Your task to perform on an android device: Clear the cart on bestbuy.com. Add "macbook pro 15 inch" to the cart on bestbuy.com, then select checkout. Image 0: 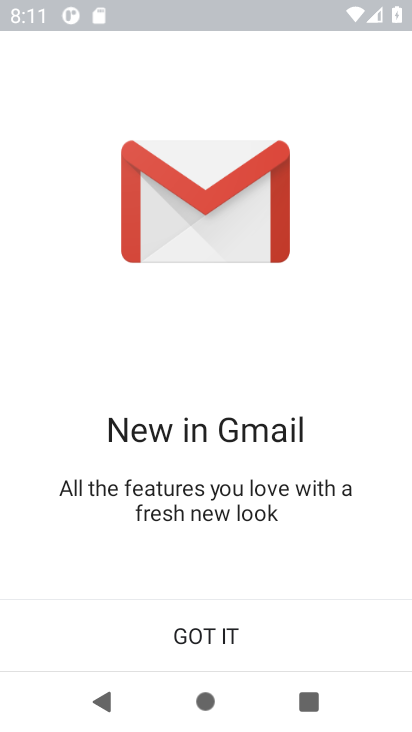
Step 0: press home button
Your task to perform on an android device: Clear the cart on bestbuy.com. Add "macbook pro 15 inch" to the cart on bestbuy.com, then select checkout. Image 1: 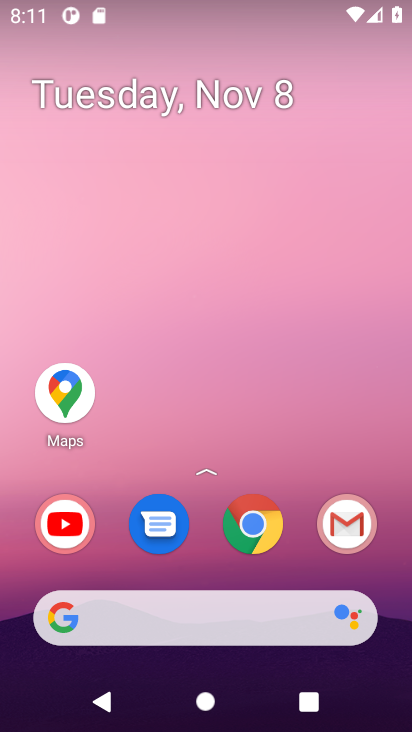
Step 1: click (254, 540)
Your task to perform on an android device: Clear the cart on bestbuy.com. Add "macbook pro 15 inch" to the cart on bestbuy.com, then select checkout. Image 2: 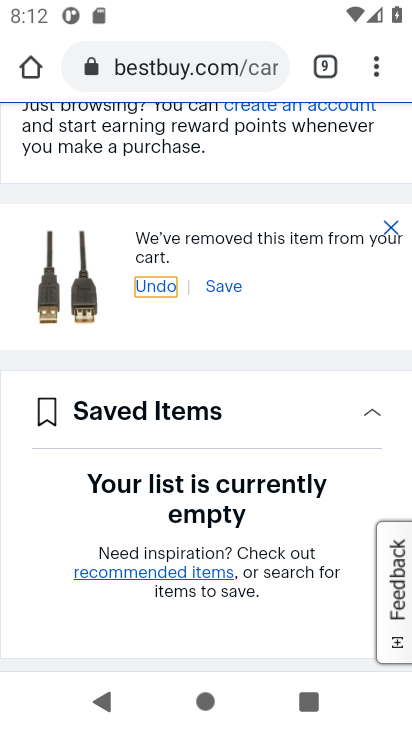
Step 2: drag from (261, 209) to (211, 525)
Your task to perform on an android device: Clear the cart on bestbuy.com. Add "macbook pro 15 inch" to the cart on bestbuy.com, then select checkout. Image 3: 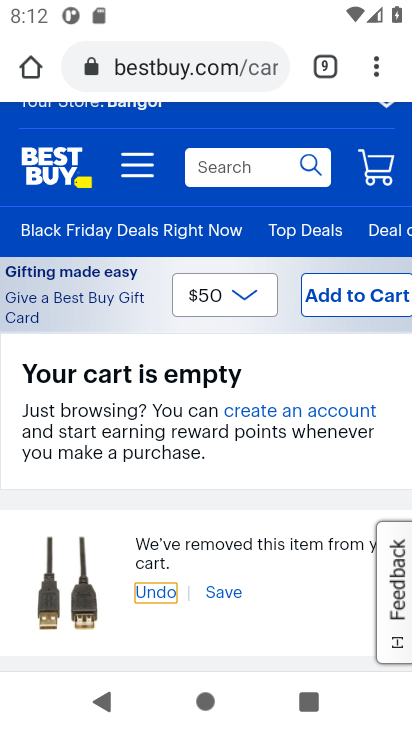
Step 3: click (234, 160)
Your task to perform on an android device: Clear the cart on bestbuy.com. Add "macbook pro 15 inch" to the cart on bestbuy.com, then select checkout. Image 4: 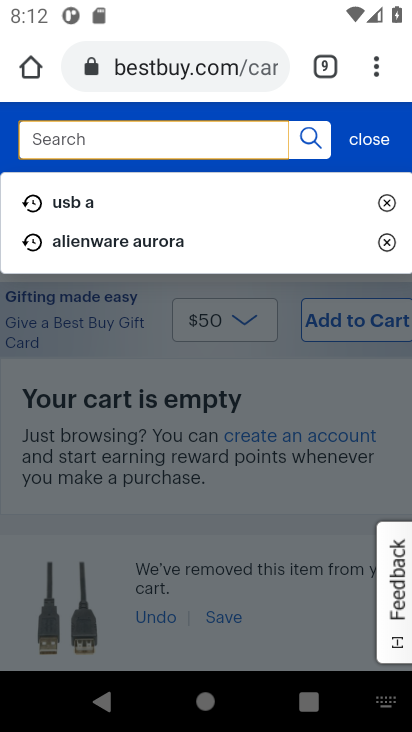
Step 4: type "macbook pro 15 inch"
Your task to perform on an android device: Clear the cart on bestbuy.com. Add "macbook pro 15 inch" to the cart on bestbuy.com, then select checkout. Image 5: 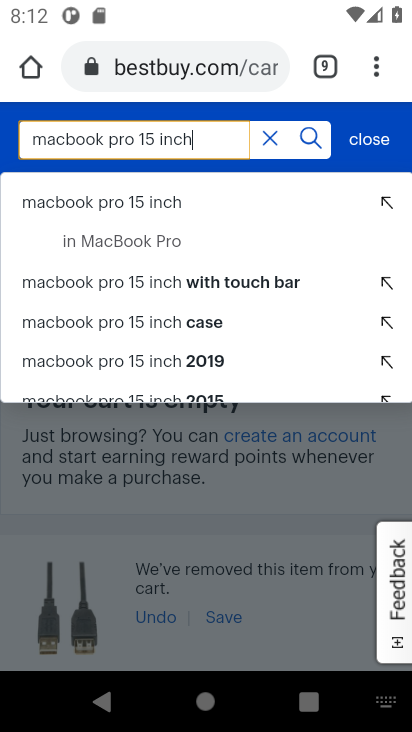
Step 5: click (158, 207)
Your task to perform on an android device: Clear the cart on bestbuy.com. Add "macbook pro 15 inch" to the cart on bestbuy.com, then select checkout. Image 6: 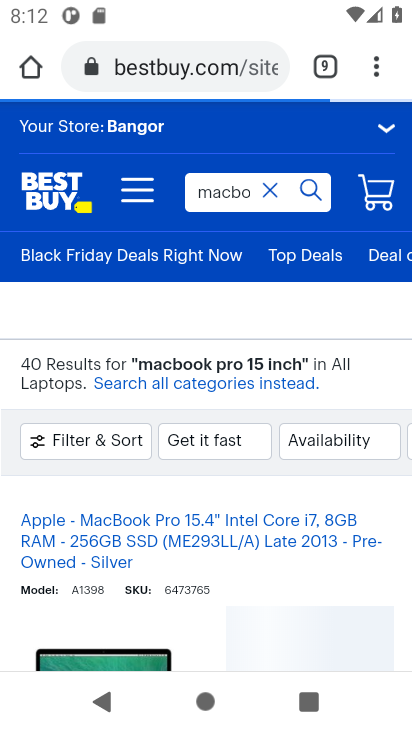
Step 6: drag from (185, 461) to (197, 295)
Your task to perform on an android device: Clear the cart on bestbuy.com. Add "macbook pro 15 inch" to the cart on bestbuy.com, then select checkout. Image 7: 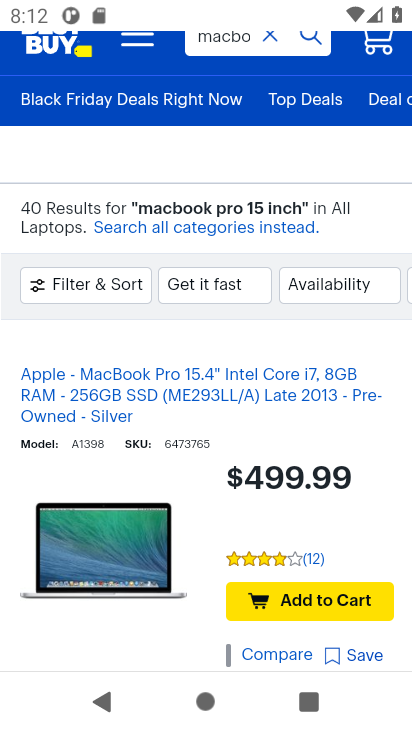
Step 7: drag from (174, 473) to (183, 177)
Your task to perform on an android device: Clear the cart on bestbuy.com. Add "macbook pro 15 inch" to the cart on bestbuy.com, then select checkout. Image 8: 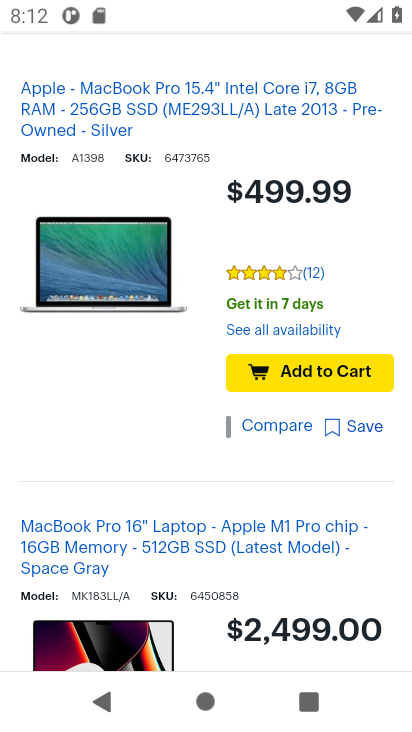
Step 8: drag from (160, 436) to (173, 107)
Your task to perform on an android device: Clear the cart on bestbuy.com. Add "macbook pro 15 inch" to the cart on bestbuy.com, then select checkout. Image 9: 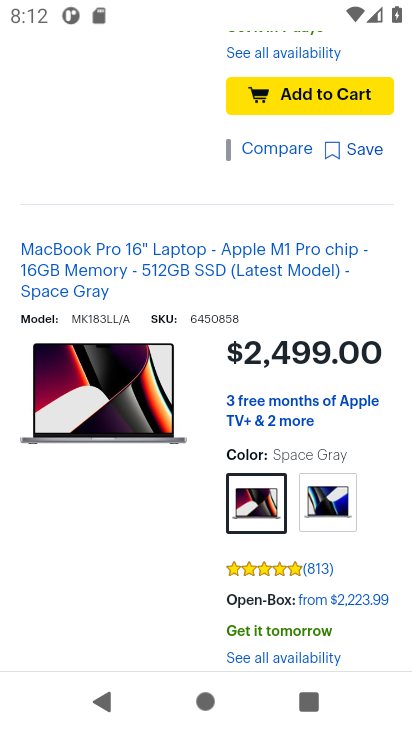
Step 9: drag from (161, 512) to (198, 154)
Your task to perform on an android device: Clear the cart on bestbuy.com. Add "macbook pro 15 inch" to the cart on bestbuy.com, then select checkout. Image 10: 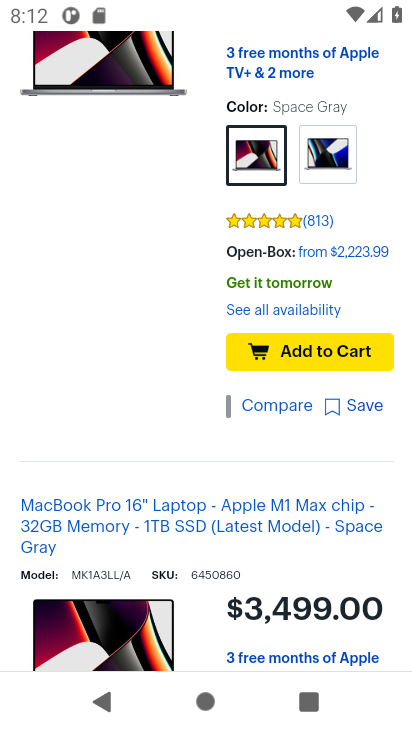
Step 10: drag from (180, 457) to (185, 214)
Your task to perform on an android device: Clear the cart on bestbuy.com. Add "macbook pro 15 inch" to the cart on bestbuy.com, then select checkout. Image 11: 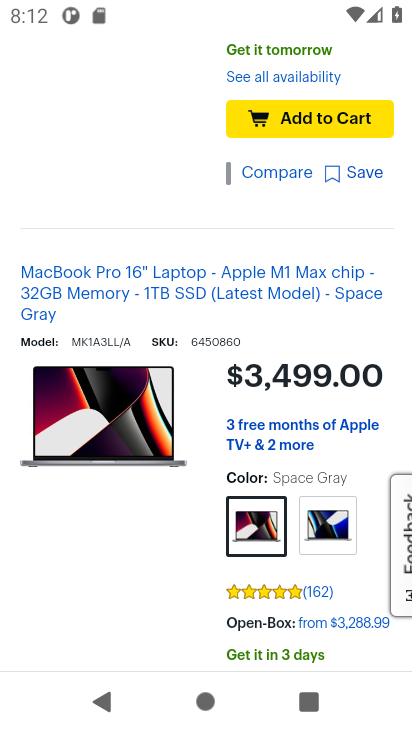
Step 11: drag from (132, 547) to (173, 170)
Your task to perform on an android device: Clear the cart on bestbuy.com. Add "macbook pro 15 inch" to the cart on bestbuy.com, then select checkout. Image 12: 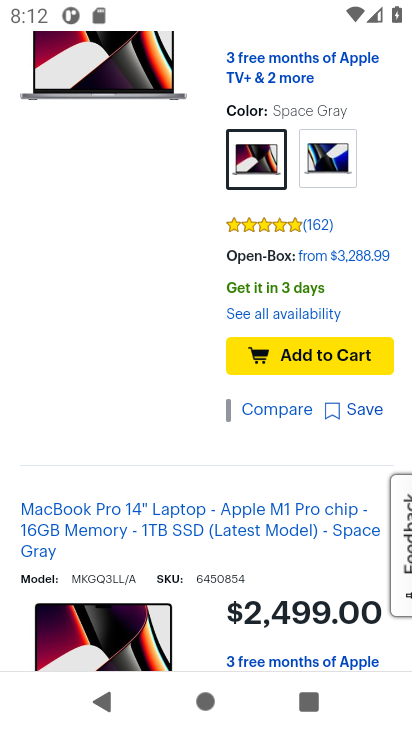
Step 12: drag from (134, 508) to (165, 116)
Your task to perform on an android device: Clear the cart on bestbuy.com. Add "macbook pro 15 inch" to the cart on bestbuy.com, then select checkout. Image 13: 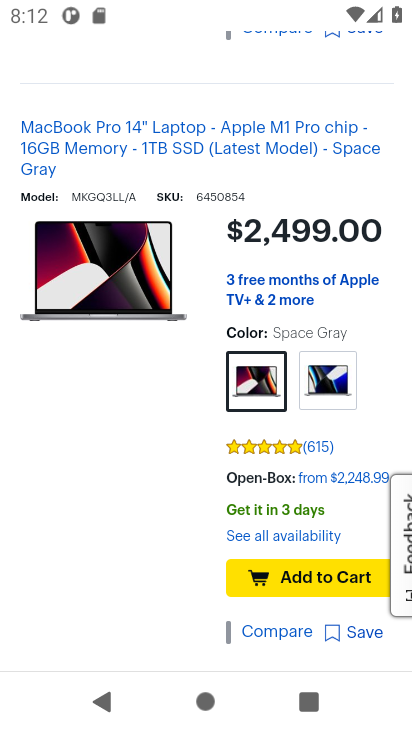
Step 13: drag from (122, 480) to (168, 119)
Your task to perform on an android device: Clear the cart on bestbuy.com. Add "macbook pro 15 inch" to the cart on bestbuy.com, then select checkout. Image 14: 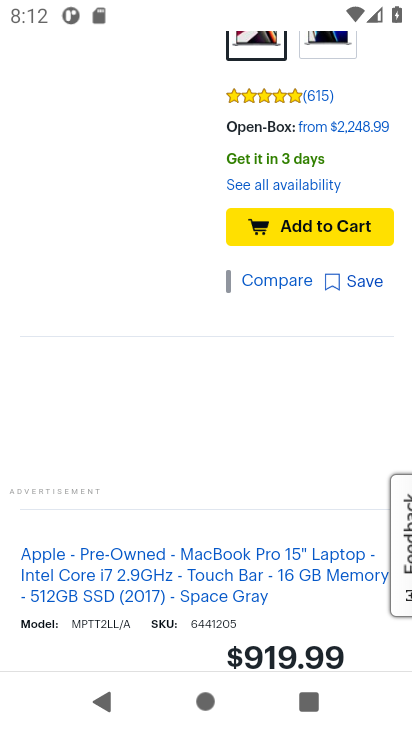
Step 14: drag from (167, 478) to (179, 152)
Your task to perform on an android device: Clear the cart on bestbuy.com. Add "macbook pro 15 inch" to the cart on bestbuy.com, then select checkout. Image 15: 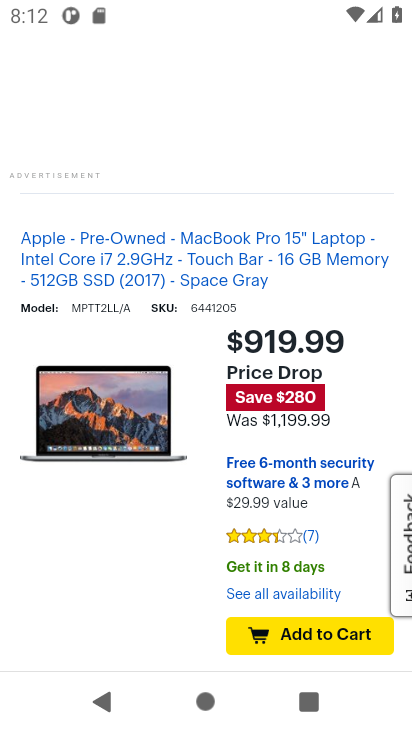
Step 15: drag from (130, 546) to (147, 433)
Your task to perform on an android device: Clear the cart on bestbuy.com. Add "macbook pro 15 inch" to the cart on bestbuy.com, then select checkout. Image 16: 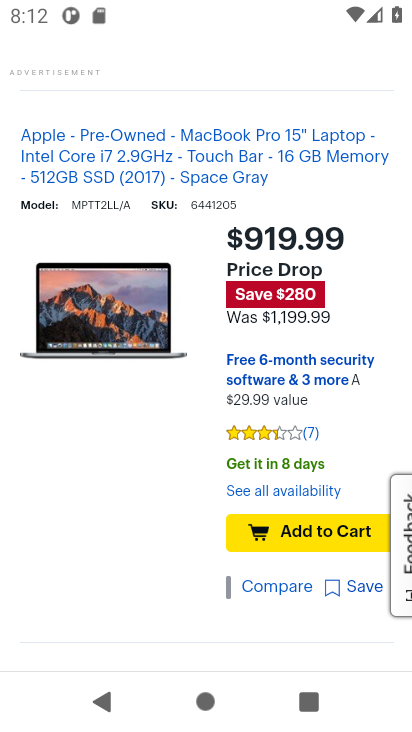
Step 16: click (288, 534)
Your task to perform on an android device: Clear the cart on bestbuy.com. Add "macbook pro 15 inch" to the cart on bestbuy.com, then select checkout. Image 17: 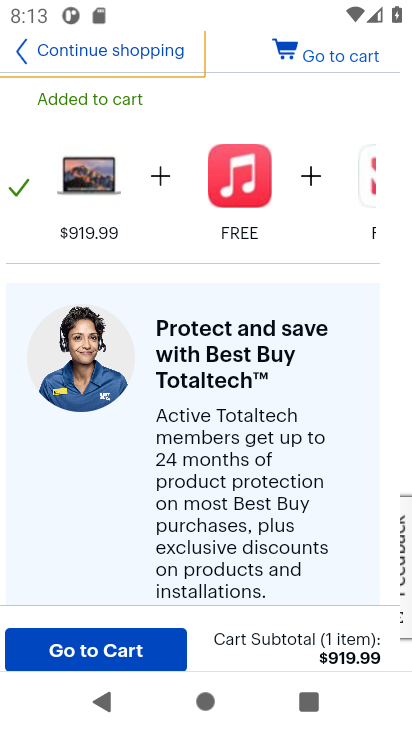
Step 17: click (324, 57)
Your task to perform on an android device: Clear the cart on bestbuy.com. Add "macbook pro 15 inch" to the cart on bestbuy.com, then select checkout. Image 18: 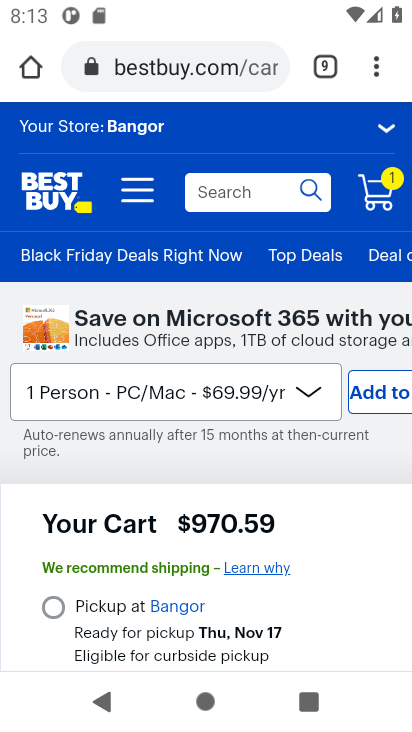
Step 18: drag from (233, 545) to (263, 198)
Your task to perform on an android device: Clear the cart on bestbuy.com. Add "macbook pro 15 inch" to the cart on bestbuy.com, then select checkout. Image 19: 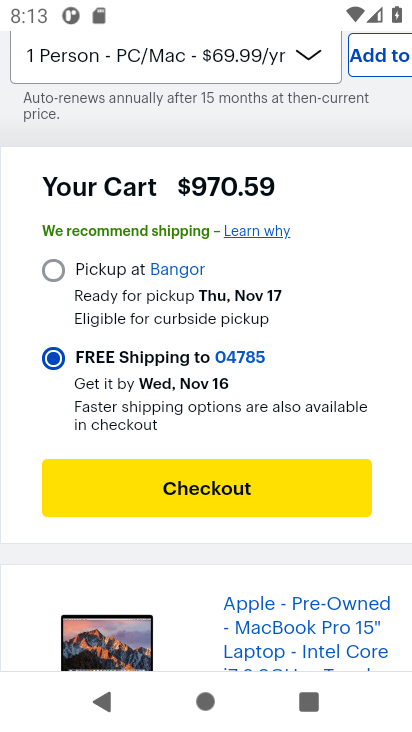
Step 19: click (193, 502)
Your task to perform on an android device: Clear the cart on bestbuy.com. Add "macbook pro 15 inch" to the cart on bestbuy.com, then select checkout. Image 20: 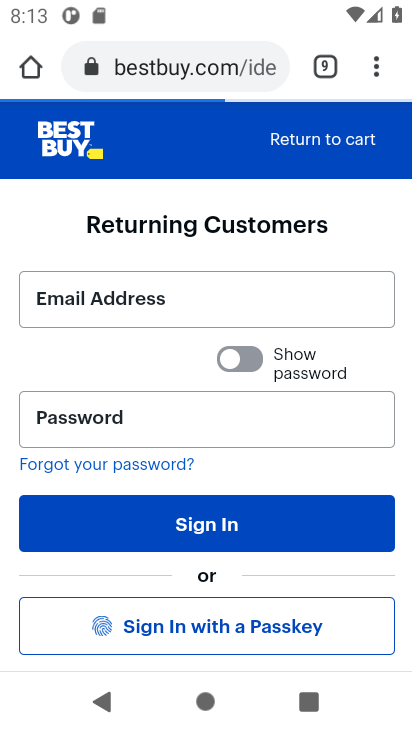
Step 20: task complete